Your task to perform on an android device: Open Google Chrome and open the bookmarks view Image 0: 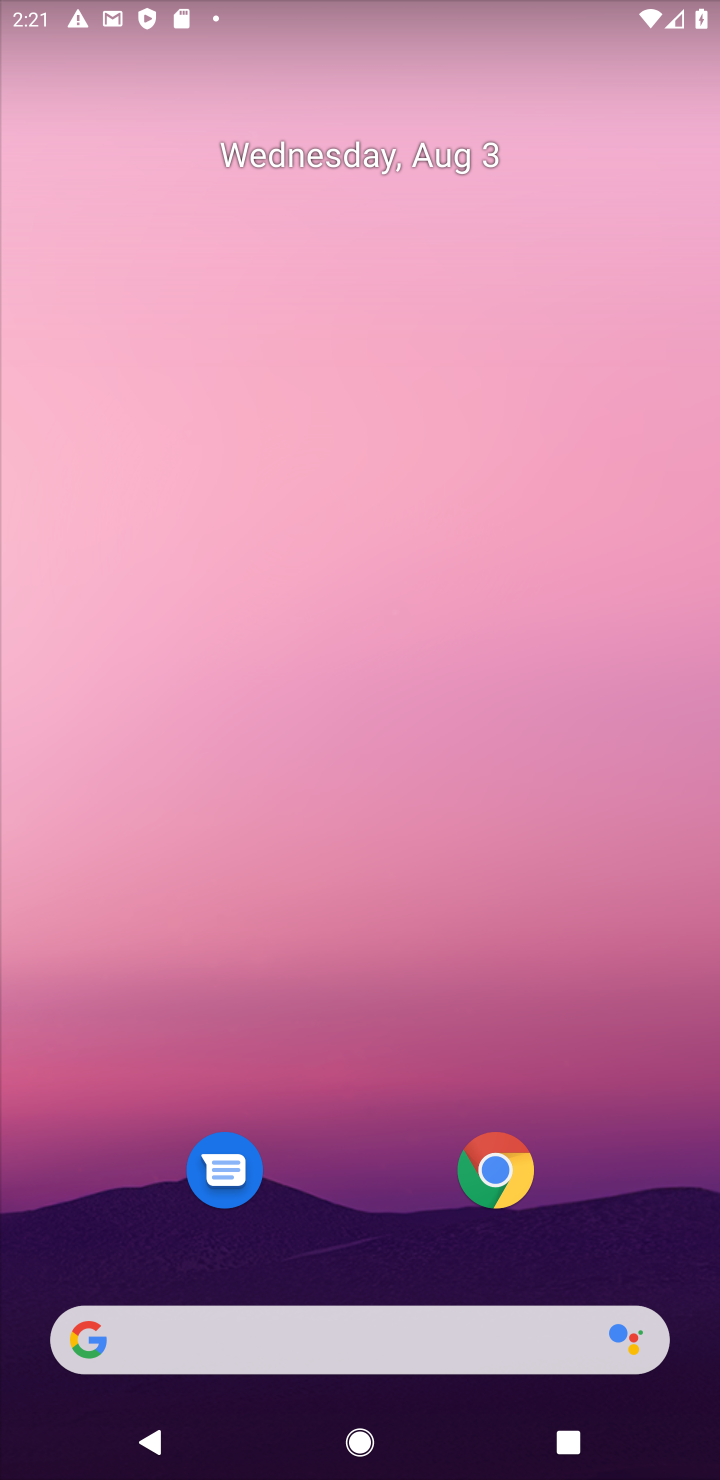
Step 0: click (501, 1170)
Your task to perform on an android device: Open Google Chrome and open the bookmarks view Image 1: 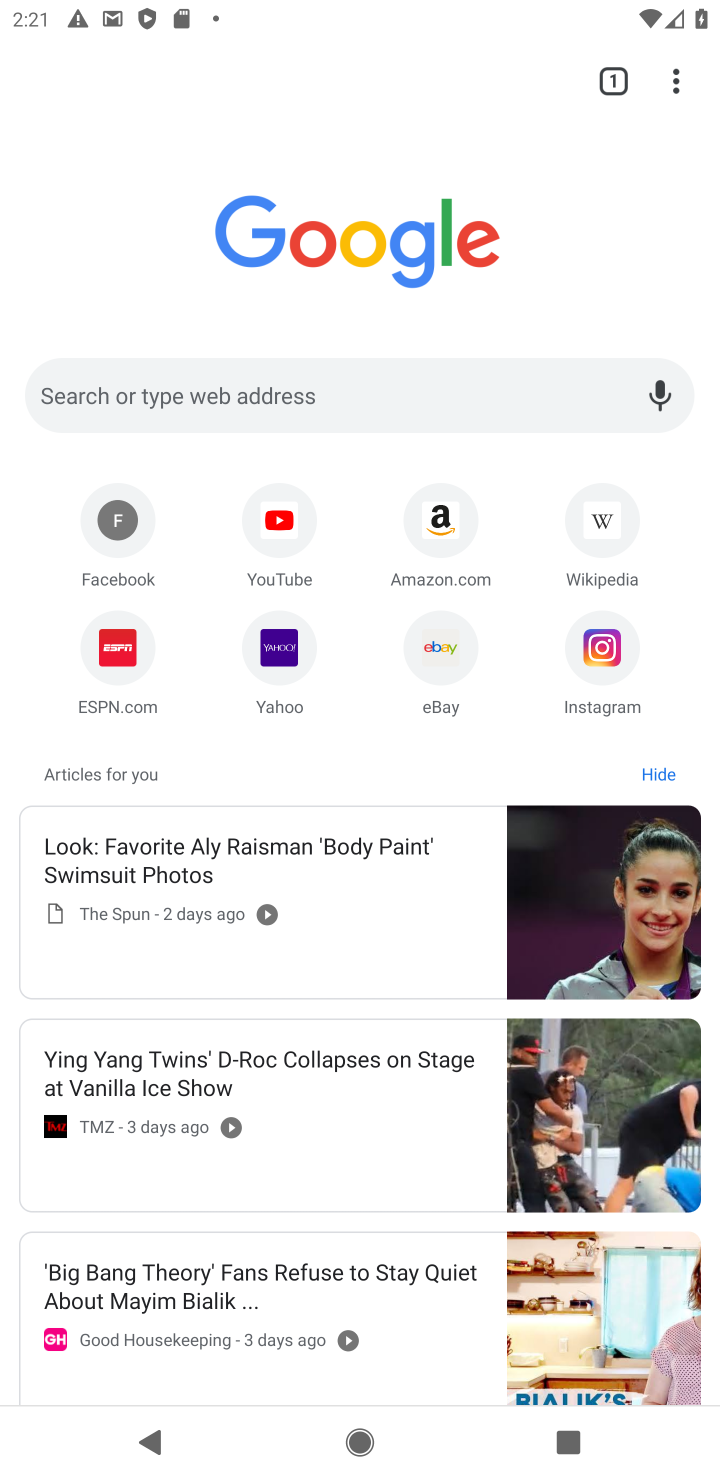
Step 1: click (675, 85)
Your task to perform on an android device: Open Google Chrome and open the bookmarks view Image 2: 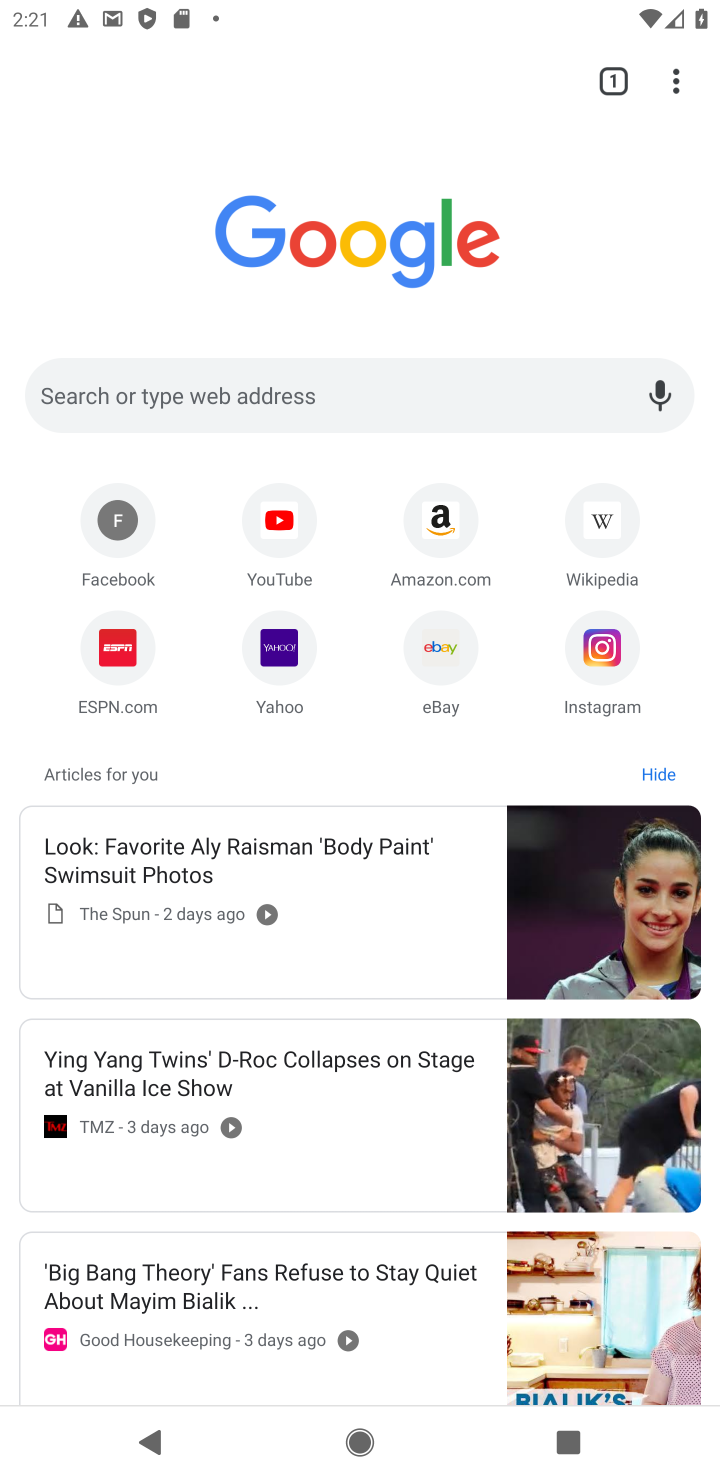
Step 2: click (669, 113)
Your task to perform on an android device: Open Google Chrome and open the bookmarks view Image 3: 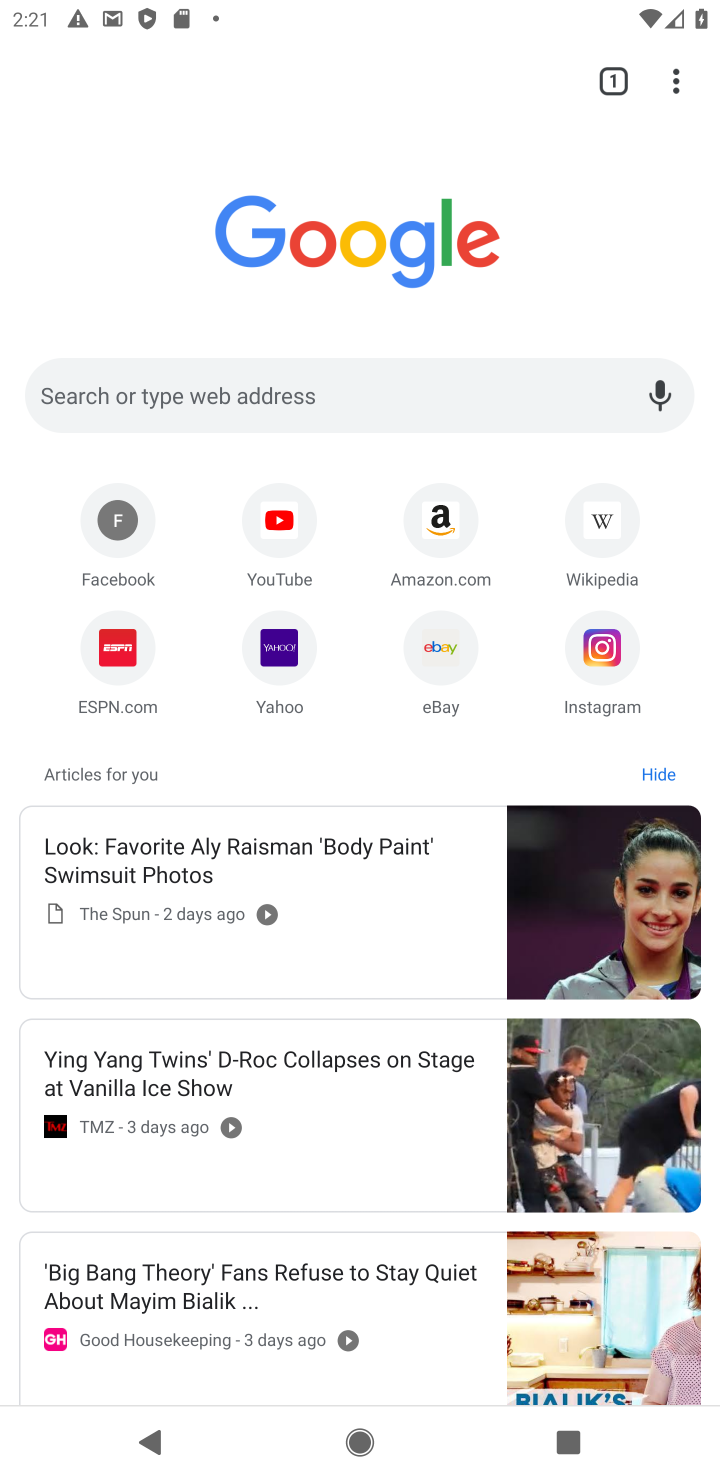
Step 3: click (714, 96)
Your task to perform on an android device: Open Google Chrome and open the bookmarks view Image 4: 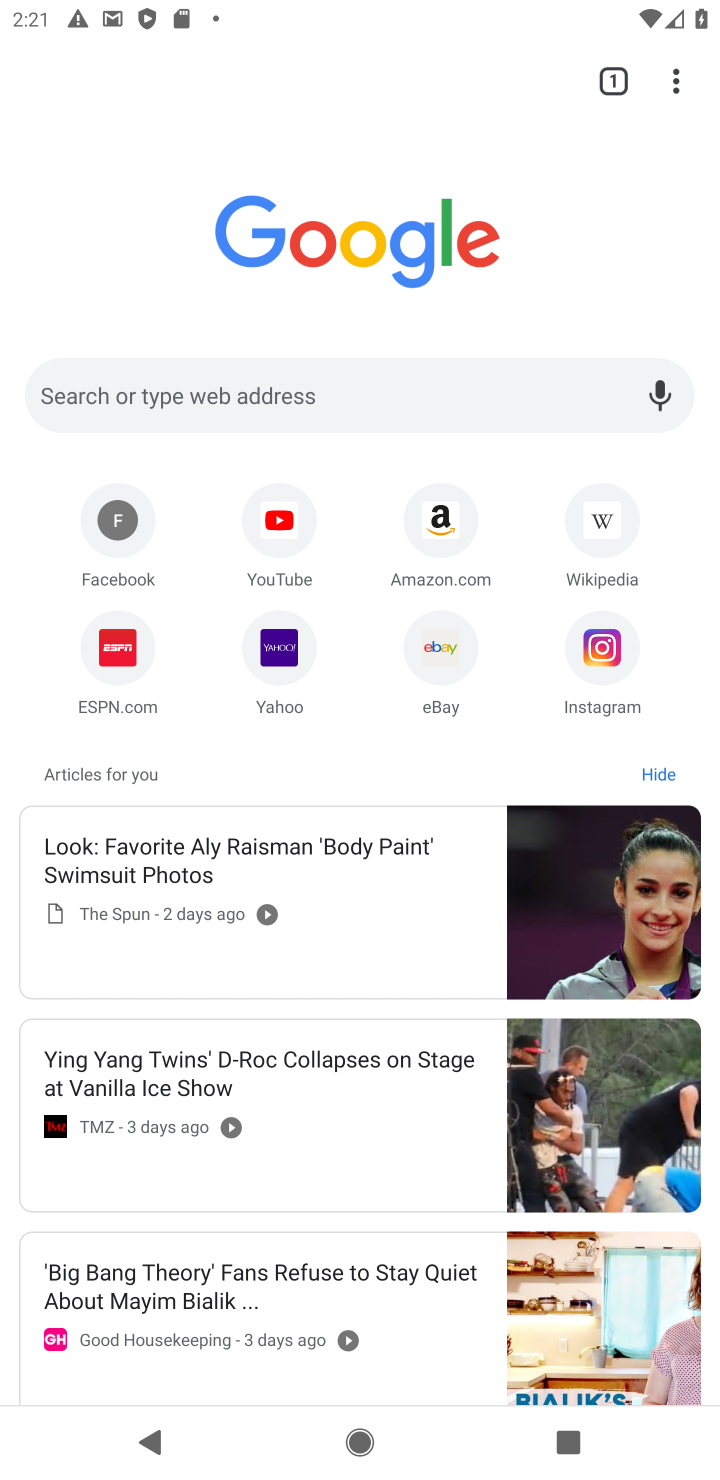
Step 4: click (712, 121)
Your task to perform on an android device: Open Google Chrome and open the bookmarks view Image 5: 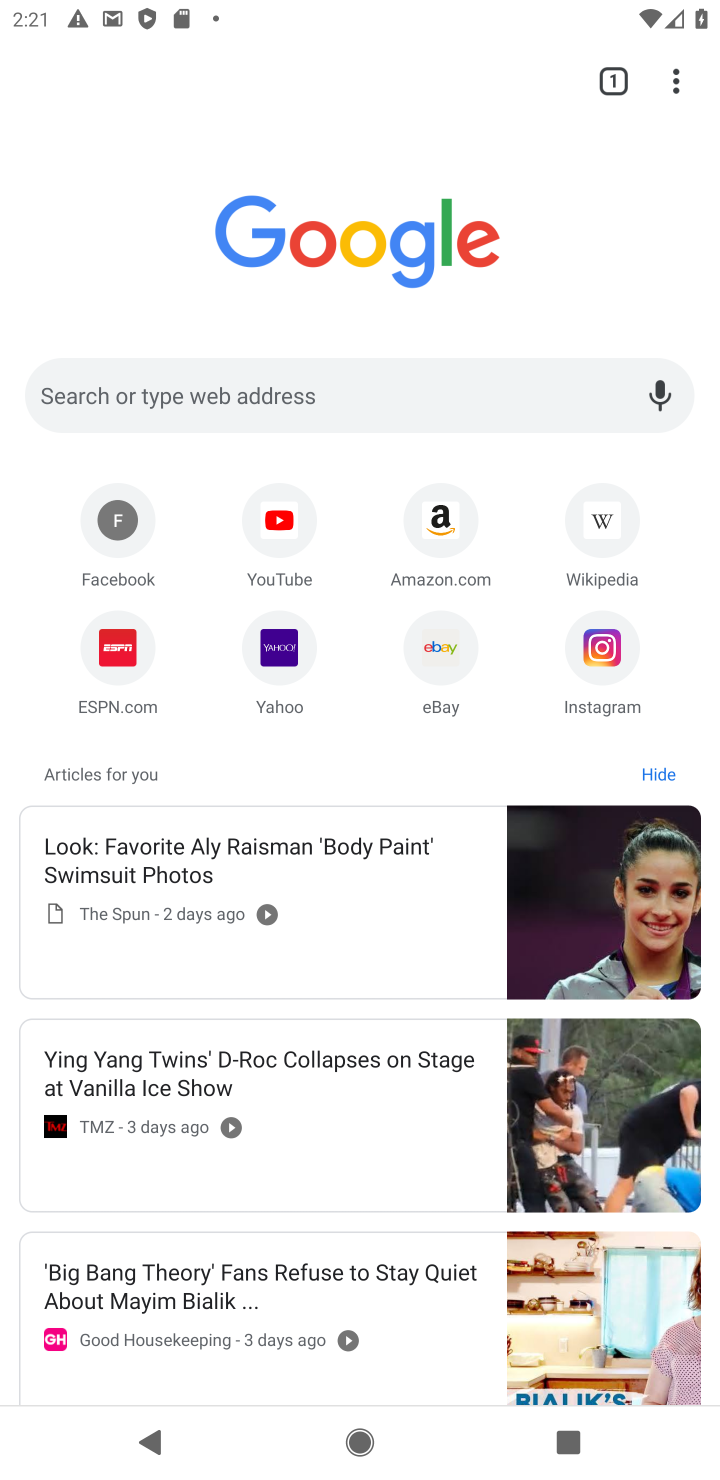
Step 5: click (701, 53)
Your task to perform on an android device: Open Google Chrome and open the bookmarks view Image 6: 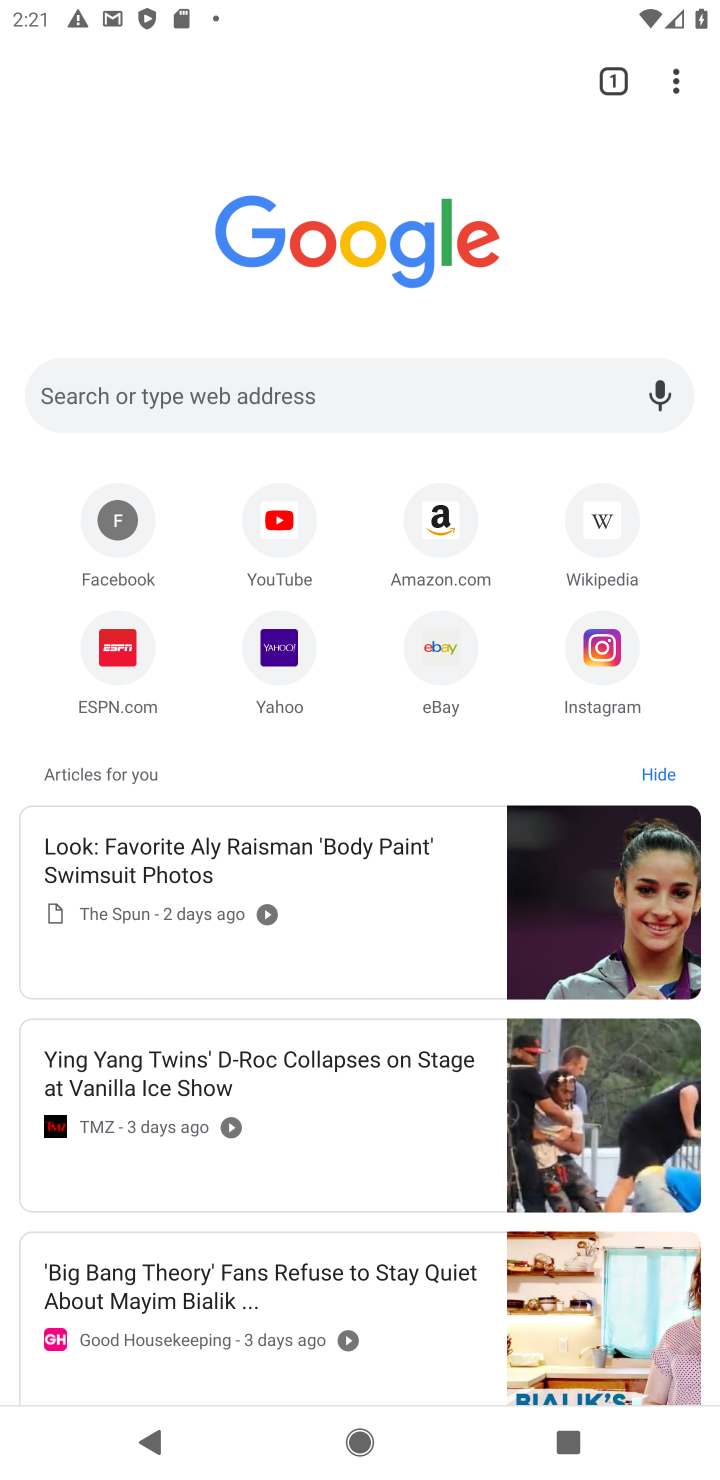
Step 6: click (691, 84)
Your task to perform on an android device: Open Google Chrome and open the bookmarks view Image 7: 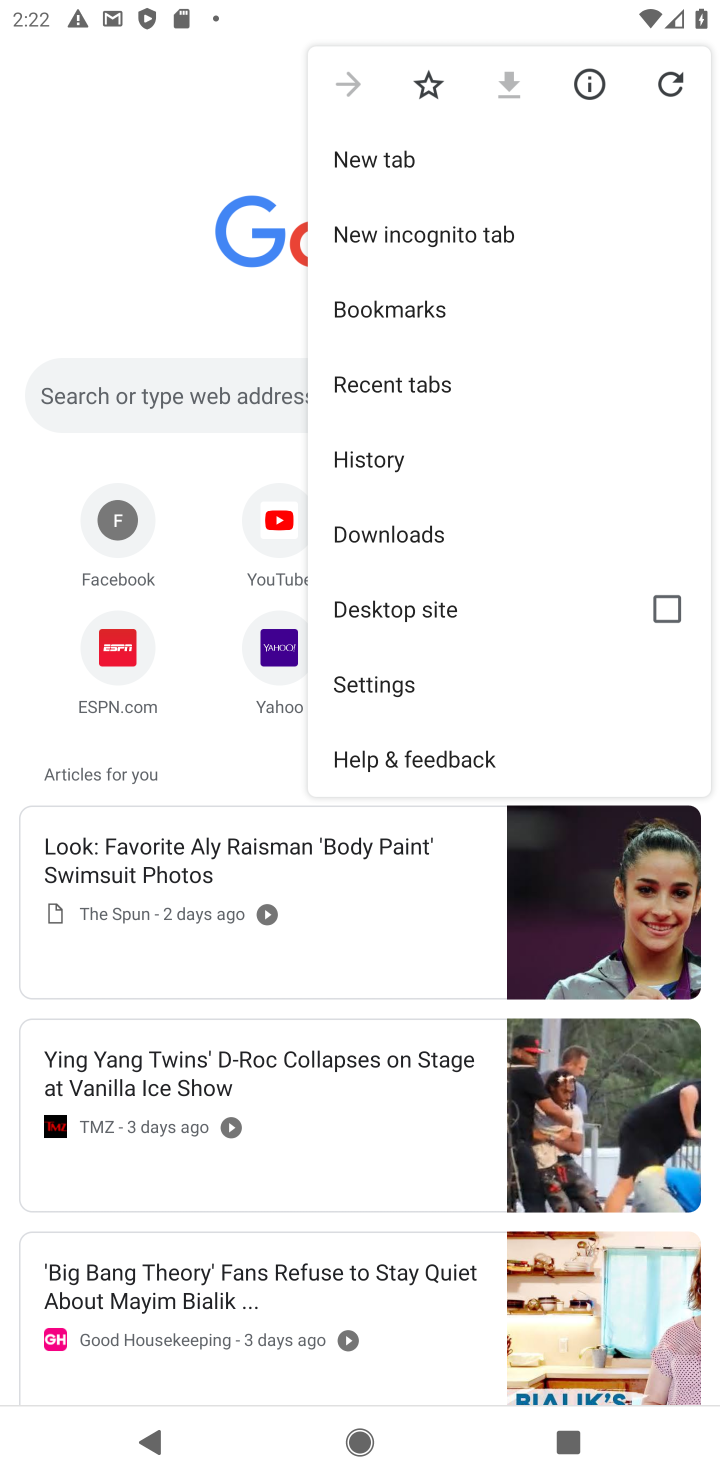
Step 7: click (405, 320)
Your task to perform on an android device: Open Google Chrome and open the bookmarks view Image 8: 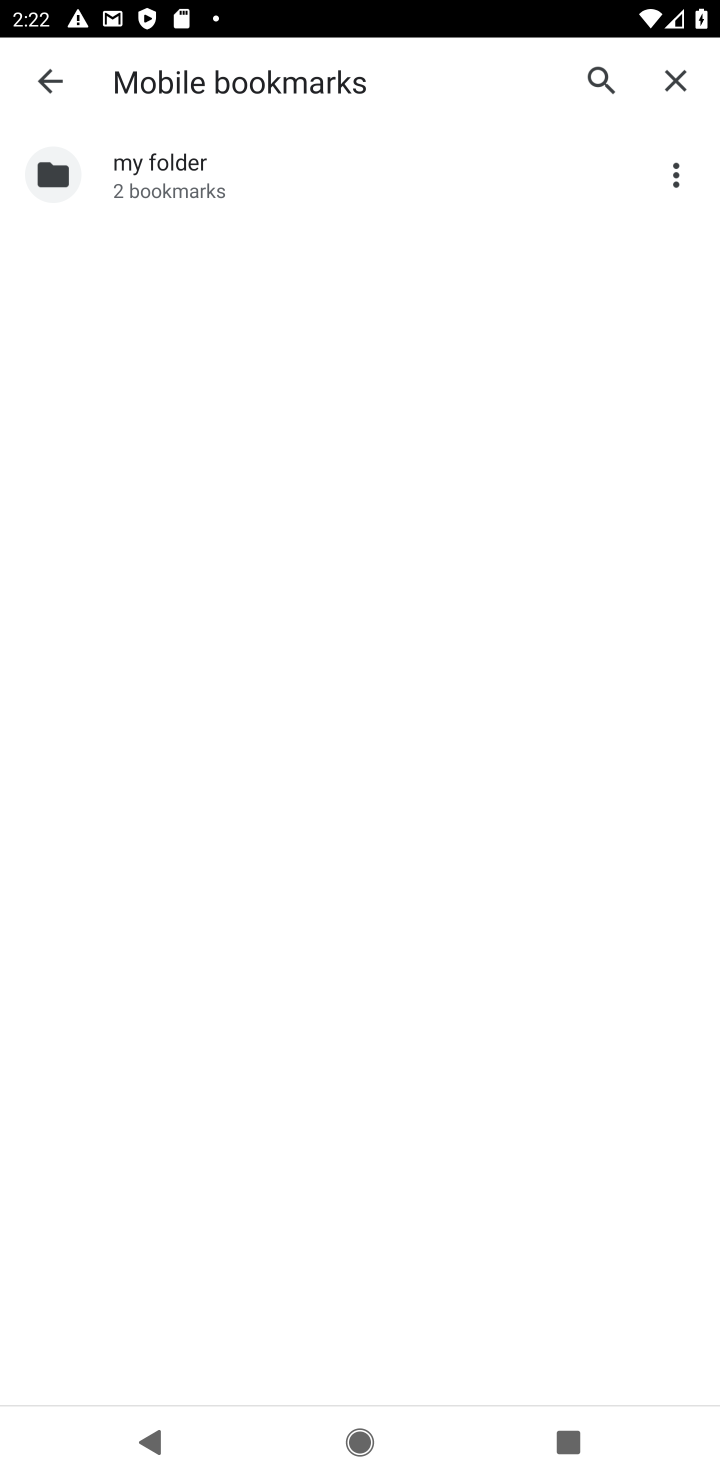
Step 8: click (342, 190)
Your task to perform on an android device: Open Google Chrome and open the bookmarks view Image 9: 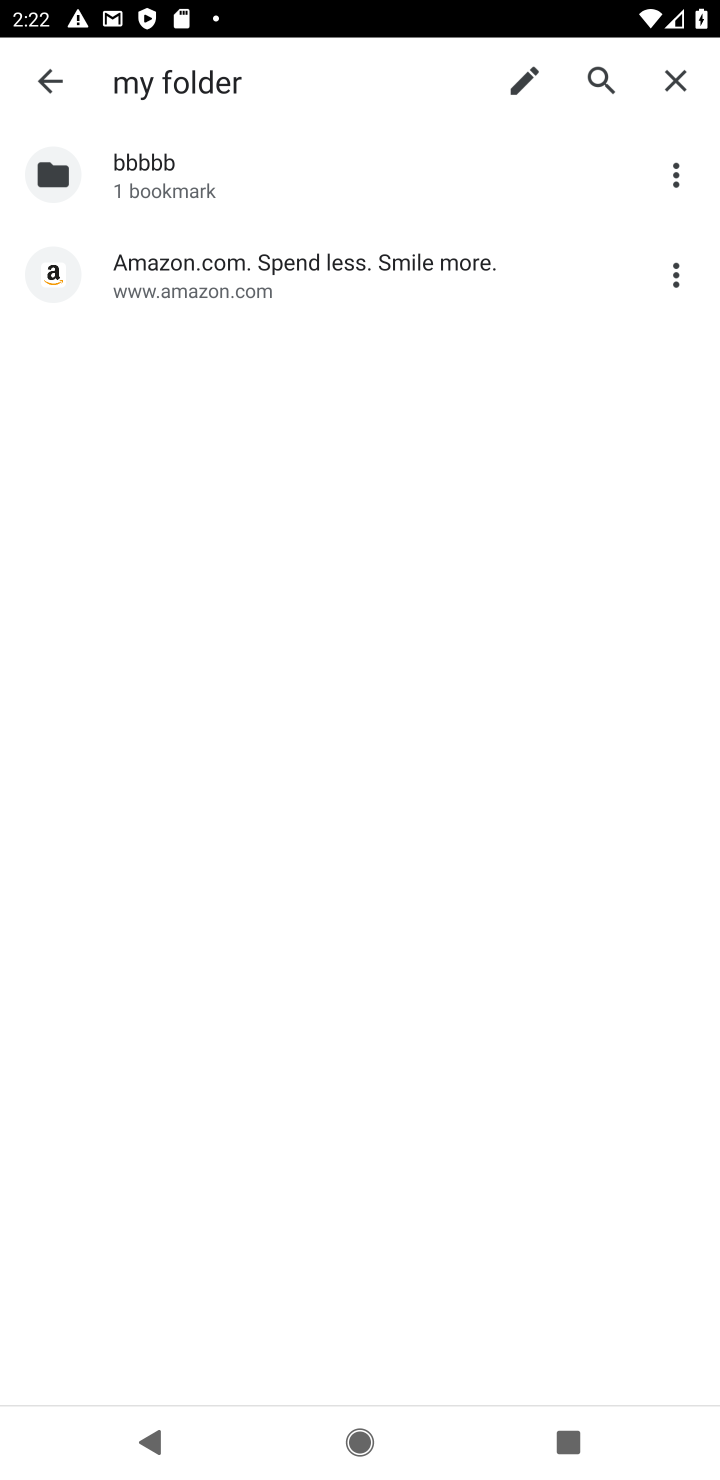
Step 9: click (340, 253)
Your task to perform on an android device: Open Google Chrome and open the bookmarks view Image 10: 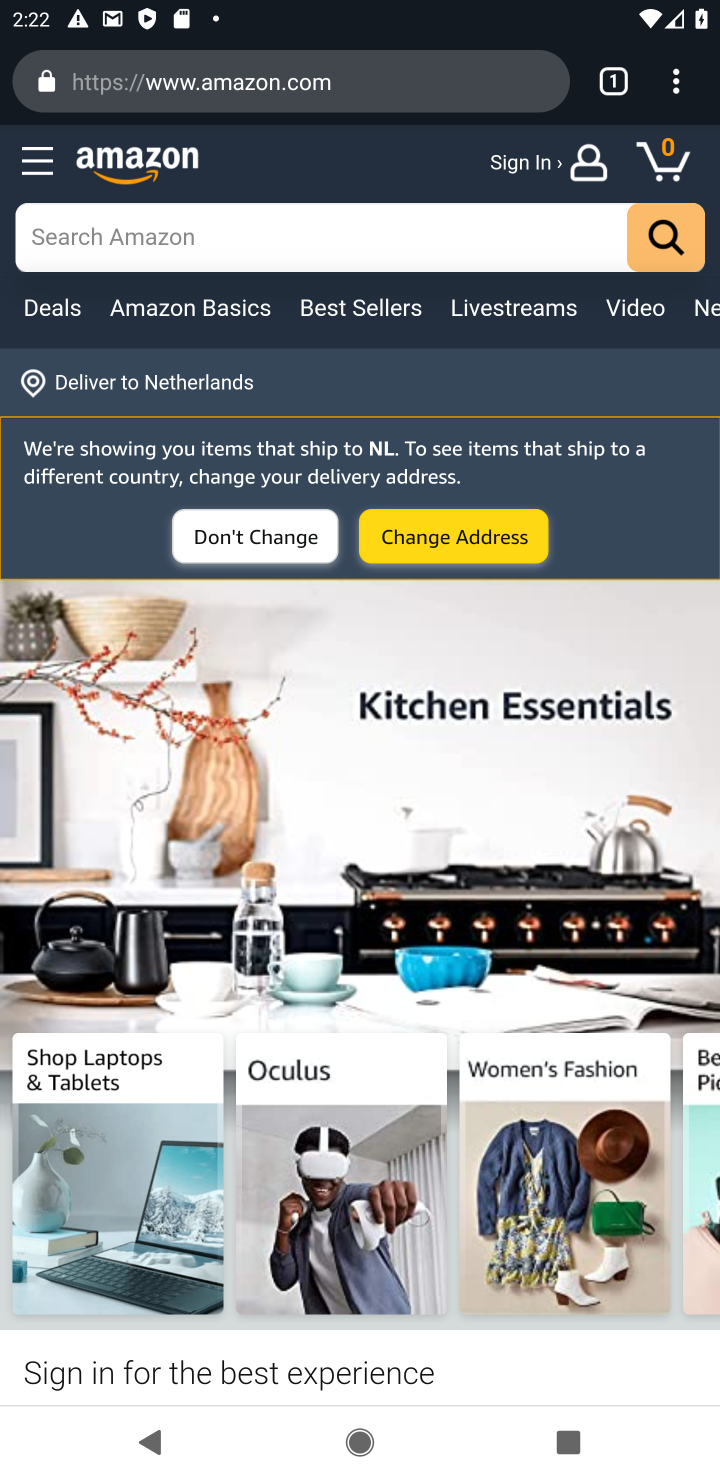
Step 10: task complete